Your task to perform on an android device: Open the calendar and show me this week's events? Image 0: 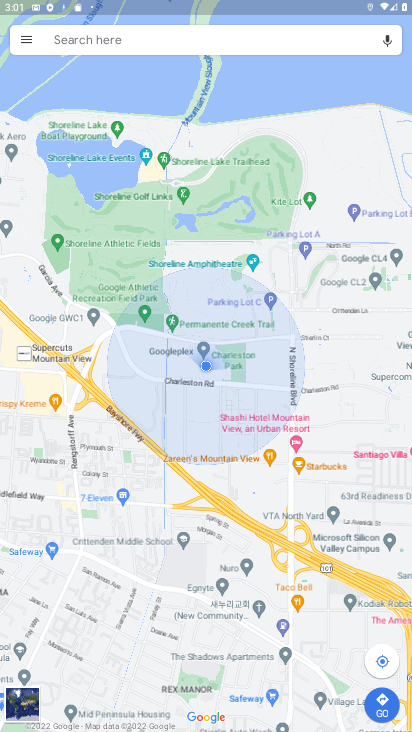
Step 0: press back button
Your task to perform on an android device: Open the calendar and show me this week's events? Image 1: 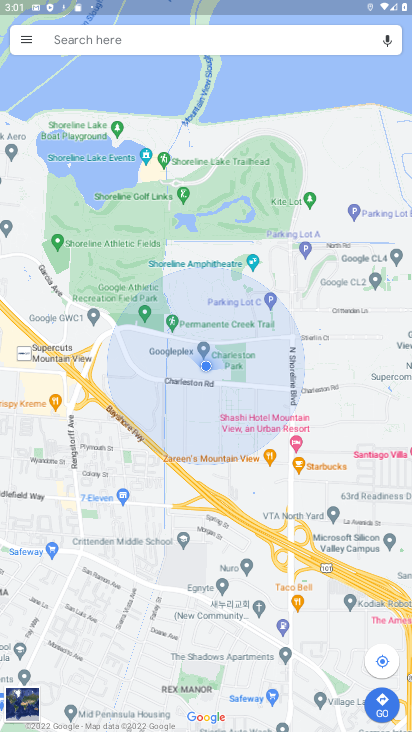
Step 1: press back button
Your task to perform on an android device: Open the calendar and show me this week's events? Image 2: 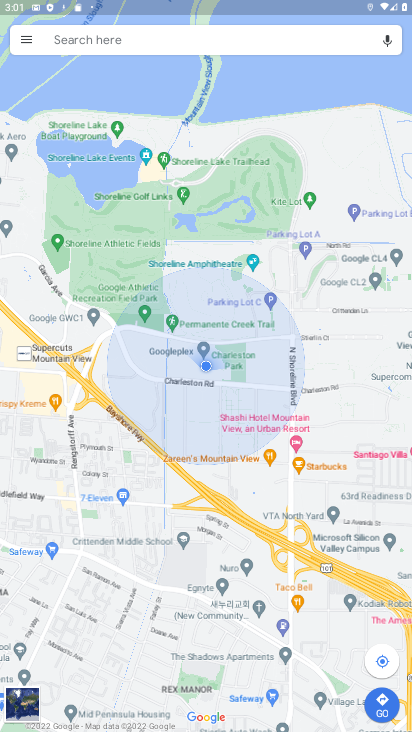
Step 2: press home button
Your task to perform on an android device: Open the calendar and show me this week's events? Image 3: 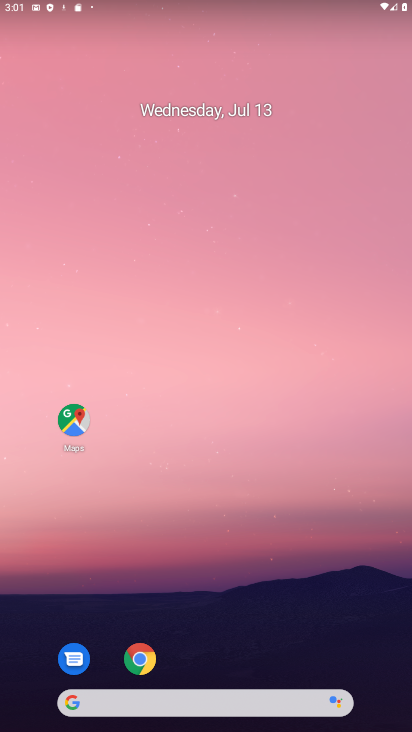
Step 3: press back button
Your task to perform on an android device: Open the calendar and show me this week's events? Image 4: 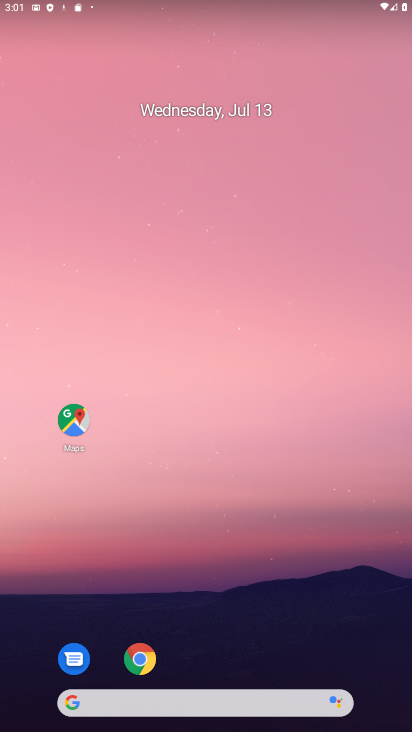
Step 4: press home button
Your task to perform on an android device: Open the calendar and show me this week's events? Image 5: 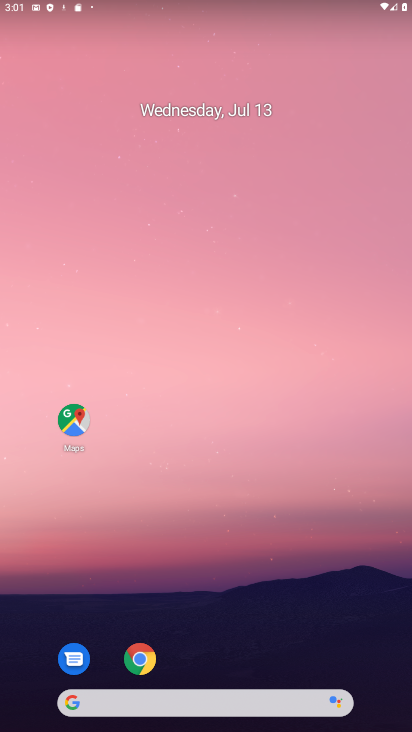
Step 5: drag from (286, 677) to (107, 103)
Your task to perform on an android device: Open the calendar and show me this week's events? Image 6: 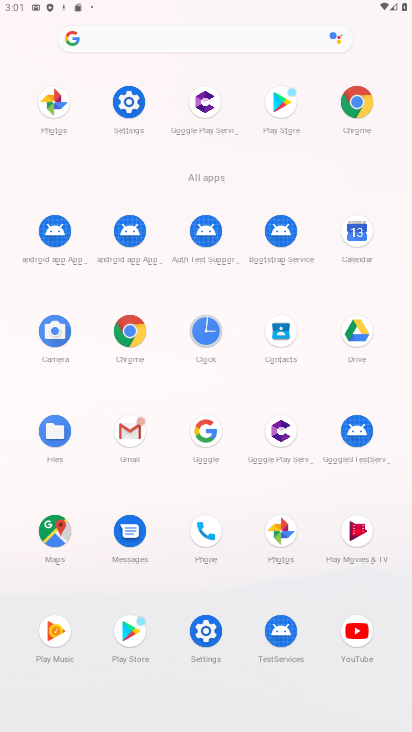
Step 6: click (358, 229)
Your task to perform on an android device: Open the calendar and show me this week's events? Image 7: 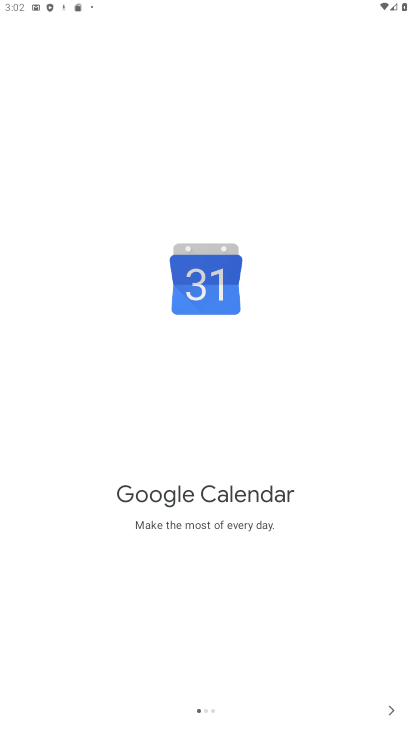
Step 7: click (355, 226)
Your task to perform on an android device: Open the calendar and show me this week's events? Image 8: 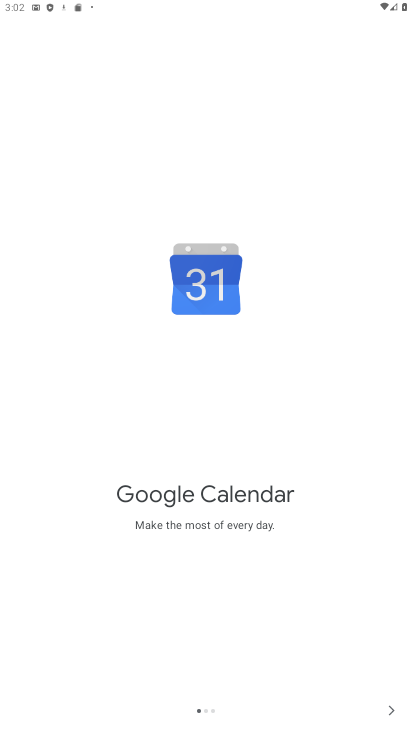
Step 8: click (353, 242)
Your task to perform on an android device: Open the calendar and show me this week's events? Image 9: 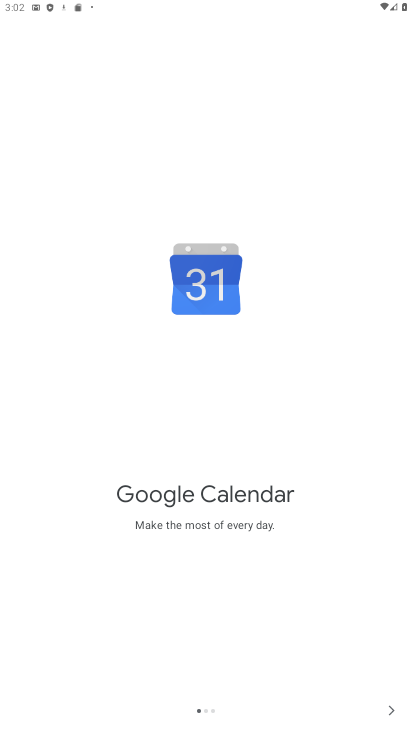
Step 9: click (354, 237)
Your task to perform on an android device: Open the calendar and show me this week's events? Image 10: 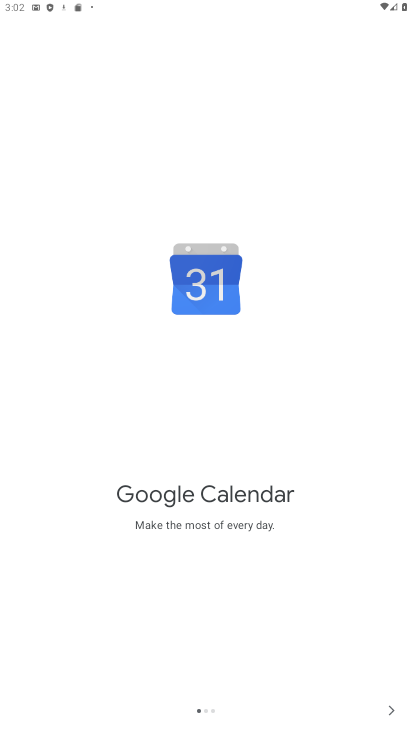
Step 10: click (357, 230)
Your task to perform on an android device: Open the calendar and show me this week's events? Image 11: 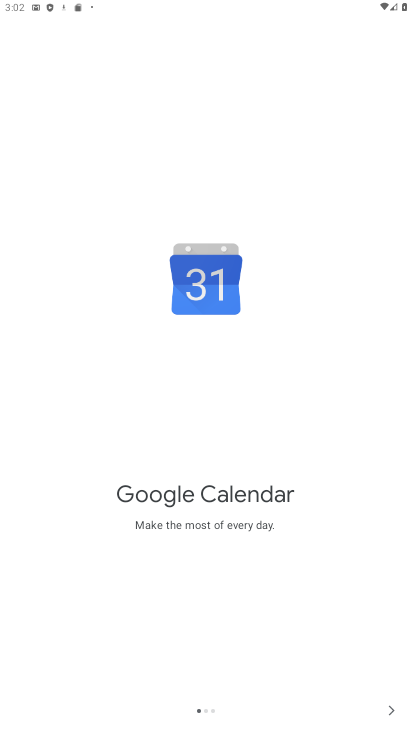
Step 11: click (390, 705)
Your task to perform on an android device: Open the calendar and show me this week's events? Image 12: 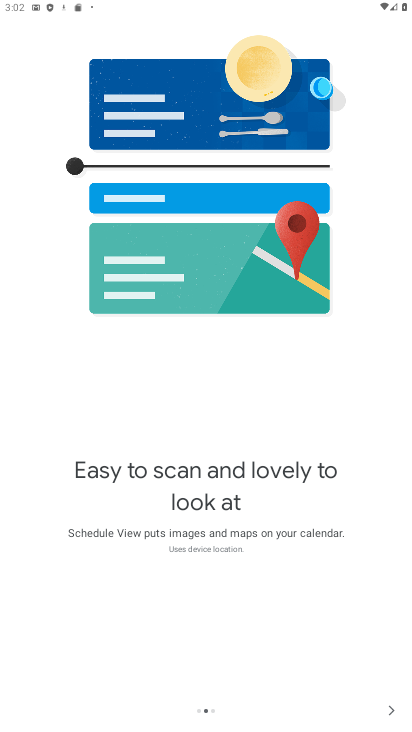
Step 12: click (207, 713)
Your task to perform on an android device: Open the calendar and show me this week's events? Image 13: 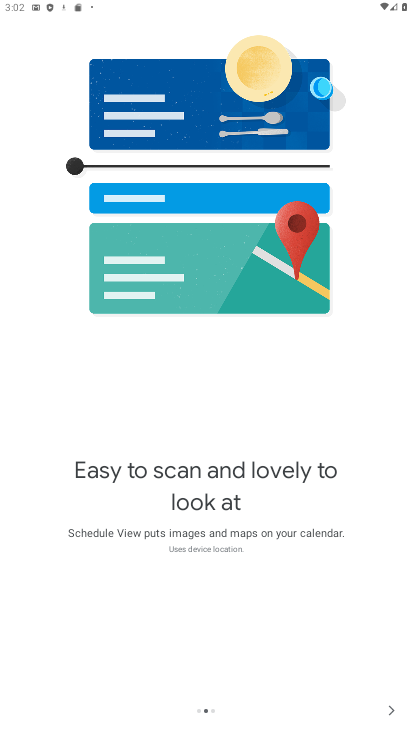
Step 13: click (397, 719)
Your task to perform on an android device: Open the calendar and show me this week's events? Image 14: 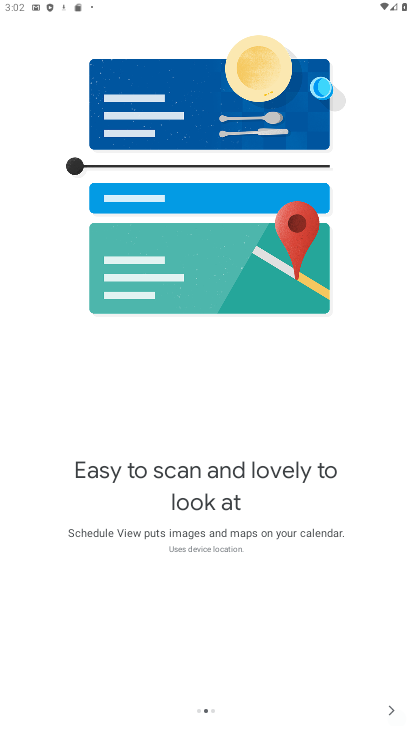
Step 14: click (397, 714)
Your task to perform on an android device: Open the calendar and show me this week's events? Image 15: 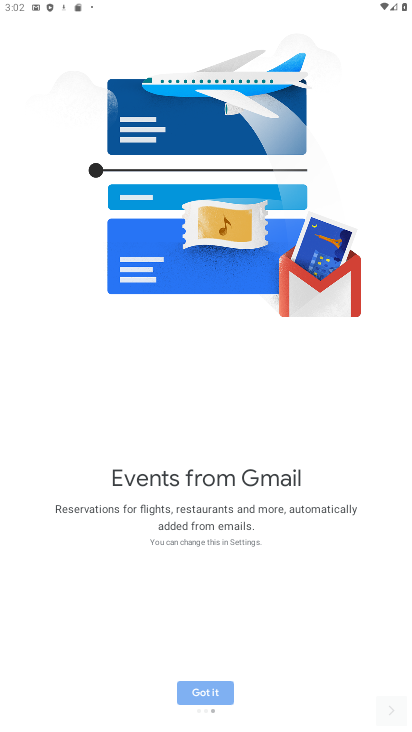
Step 15: click (387, 704)
Your task to perform on an android device: Open the calendar and show me this week's events? Image 16: 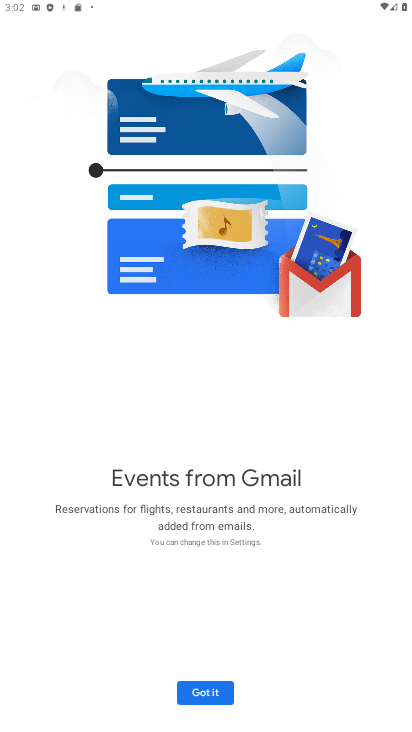
Step 16: click (385, 701)
Your task to perform on an android device: Open the calendar and show me this week's events? Image 17: 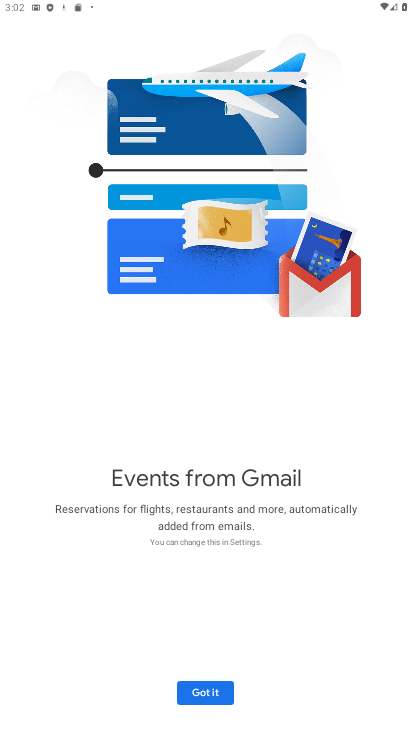
Step 17: click (397, 709)
Your task to perform on an android device: Open the calendar and show me this week's events? Image 18: 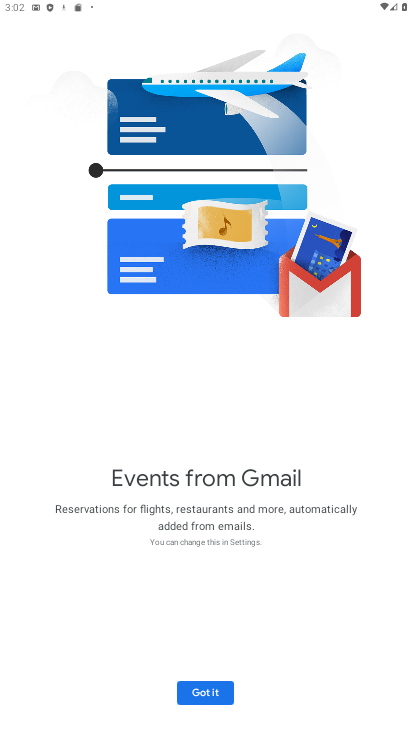
Step 18: drag from (240, 690) to (199, 685)
Your task to perform on an android device: Open the calendar and show me this week's events? Image 19: 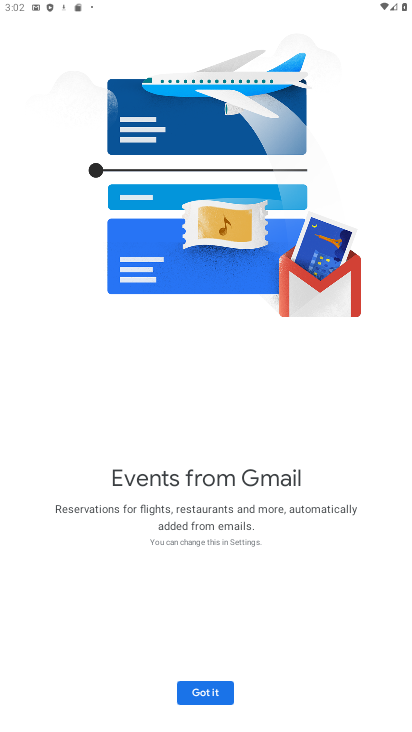
Step 19: click (211, 694)
Your task to perform on an android device: Open the calendar and show me this week's events? Image 20: 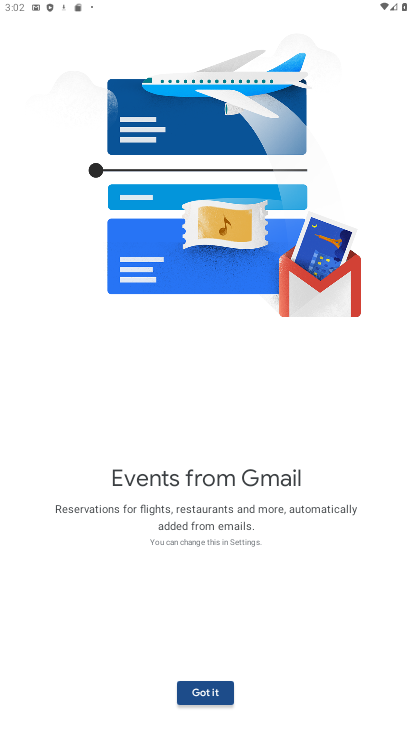
Step 20: click (219, 689)
Your task to perform on an android device: Open the calendar and show me this week's events? Image 21: 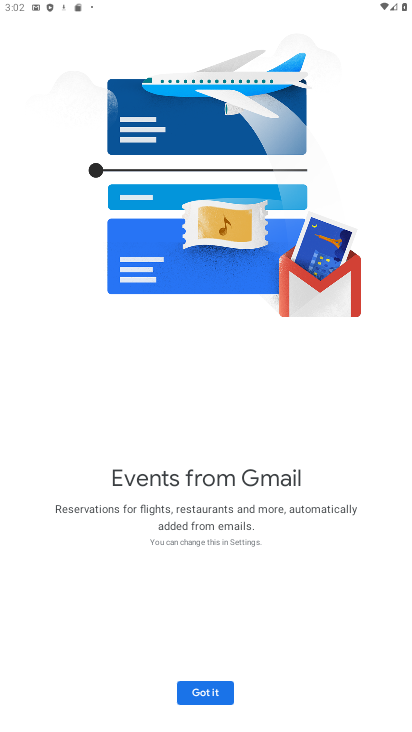
Step 21: click (220, 692)
Your task to perform on an android device: Open the calendar and show me this week's events? Image 22: 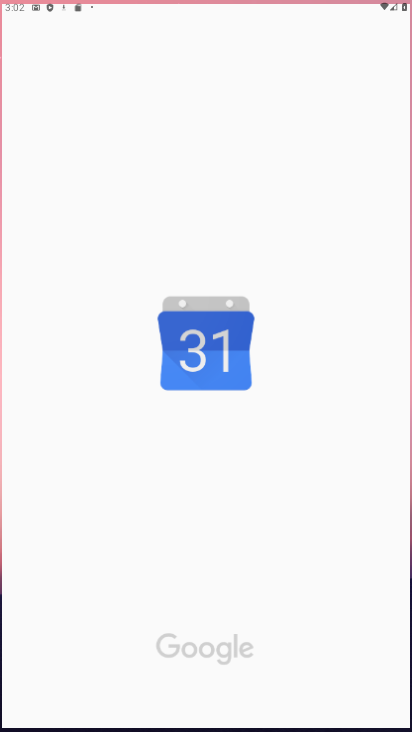
Step 22: click (220, 692)
Your task to perform on an android device: Open the calendar and show me this week's events? Image 23: 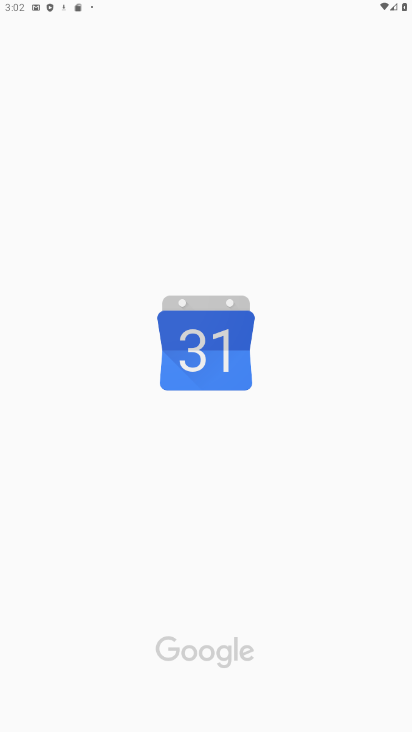
Step 23: click (220, 692)
Your task to perform on an android device: Open the calendar and show me this week's events? Image 24: 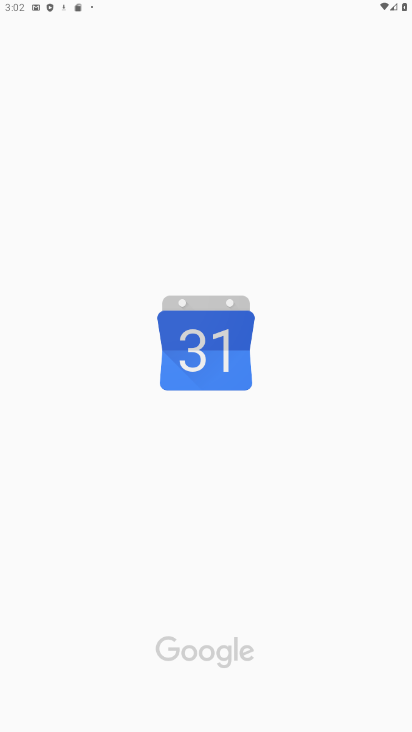
Step 24: click (219, 692)
Your task to perform on an android device: Open the calendar and show me this week's events? Image 25: 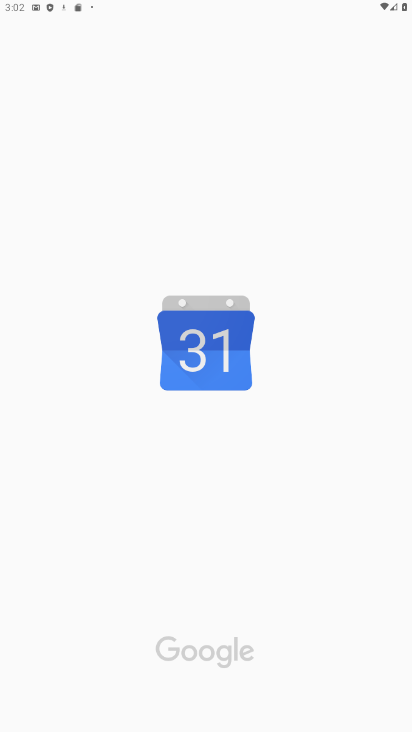
Step 25: click (218, 691)
Your task to perform on an android device: Open the calendar and show me this week's events? Image 26: 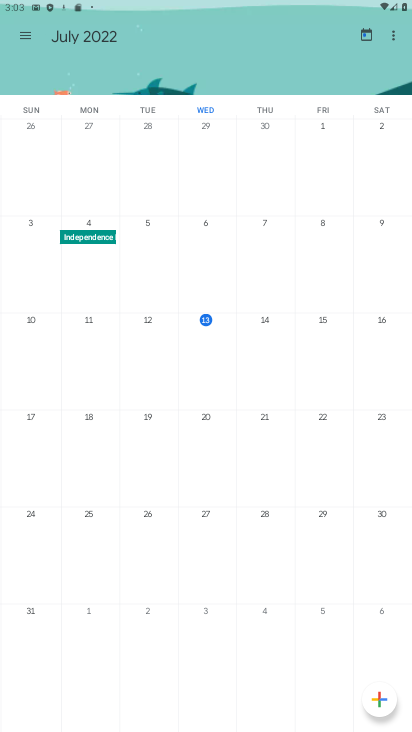
Step 26: click (334, 318)
Your task to perform on an android device: Open the calendar and show me this week's events? Image 27: 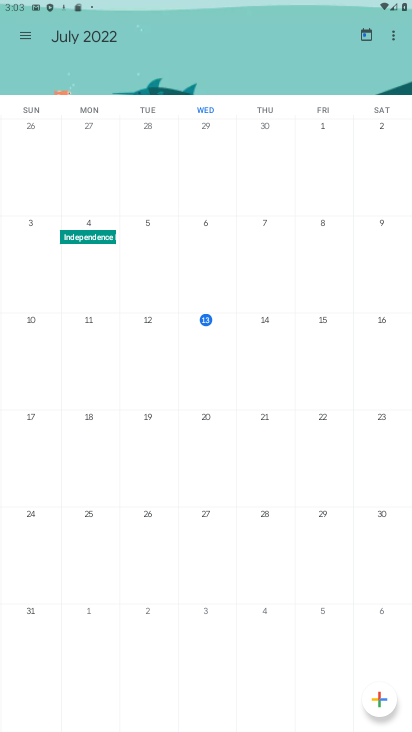
Step 27: click (327, 313)
Your task to perform on an android device: Open the calendar and show me this week's events? Image 28: 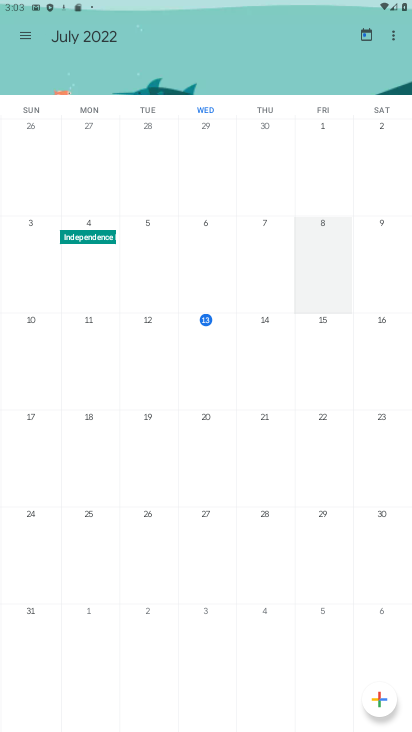
Step 28: click (329, 311)
Your task to perform on an android device: Open the calendar and show me this week's events? Image 29: 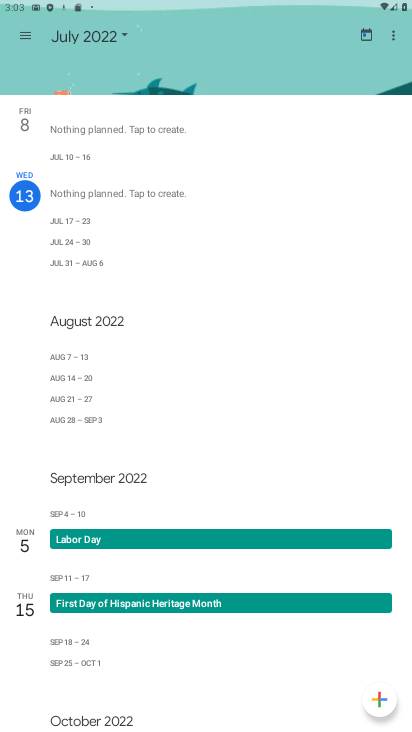
Step 29: click (387, 313)
Your task to perform on an android device: Open the calendar and show me this week's events? Image 30: 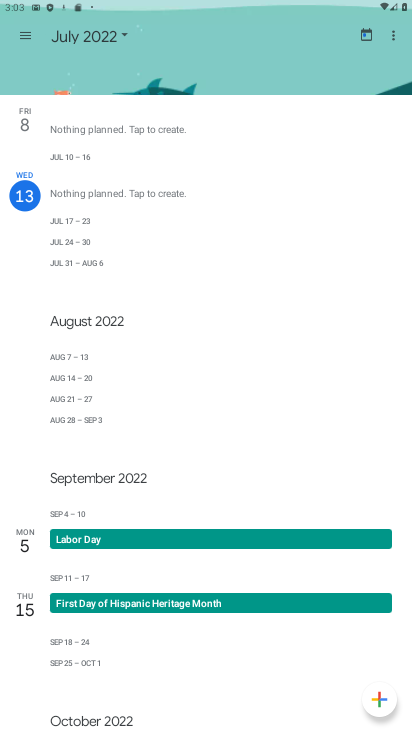
Step 30: click (387, 313)
Your task to perform on an android device: Open the calendar and show me this week's events? Image 31: 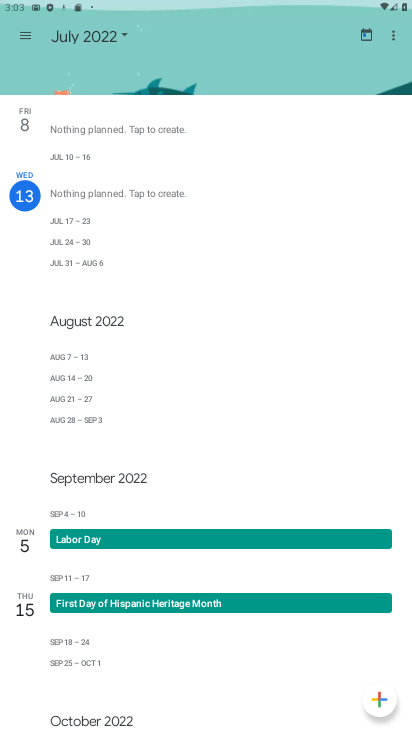
Step 31: click (385, 318)
Your task to perform on an android device: Open the calendar and show me this week's events? Image 32: 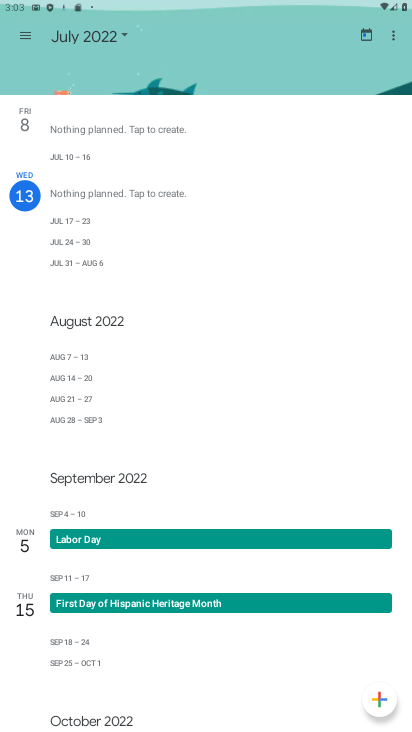
Step 32: task complete